Your task to perform on an android device: turn on the 24-hour format for clock Image 0: 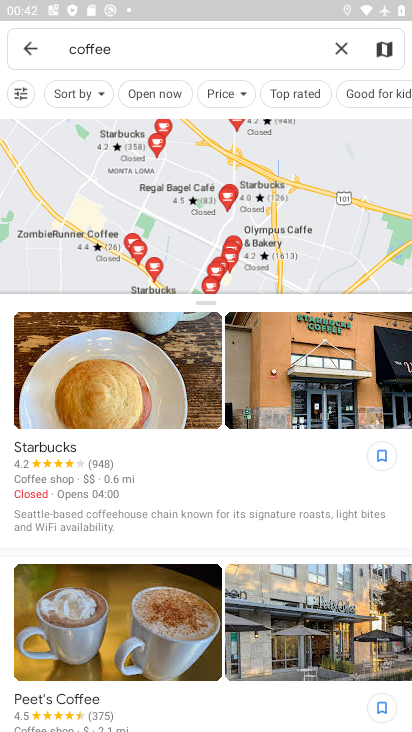
Step 0: press home button
Your task to perform on an android device: turn on the 24-hour format for clock Image 1: 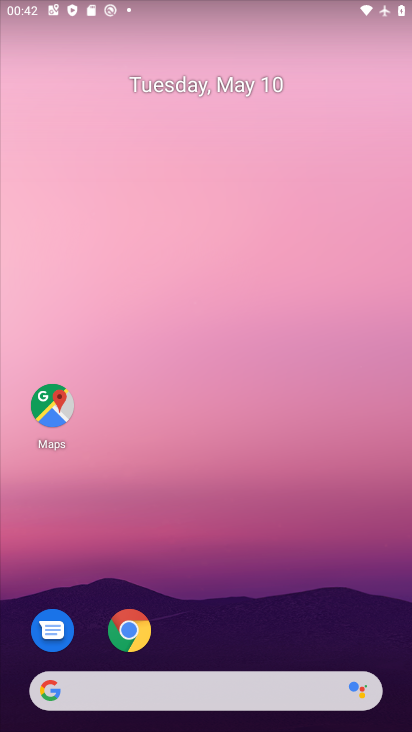
Step 1: drag from (224, 727) to (224, 249)
Your task to perform on an android device: turn on the 24-hour format for clock Image 2: 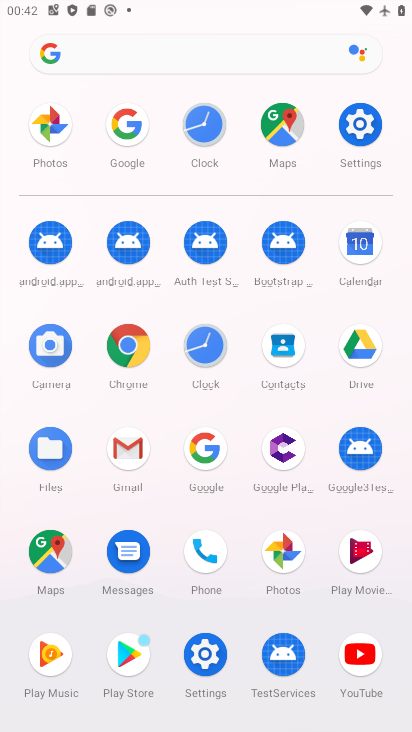
Step 2: click (208, 348)
Your task to perform on an android device: turn on the 24-hour format for clock Image 3: 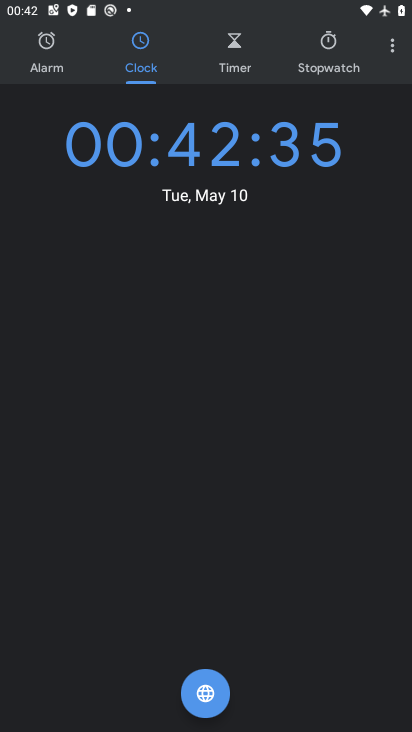
Step 3: click (393, 43)
Your task to perform on an android device: turn on the 24-hour format for clock Image 4: 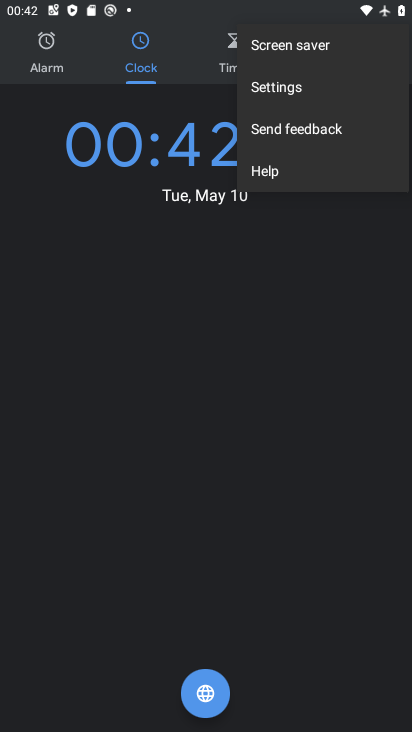
Step 4: click (280, 88)
Your task to perform on an android device: turn on the 24-hour format for clock Image 5: 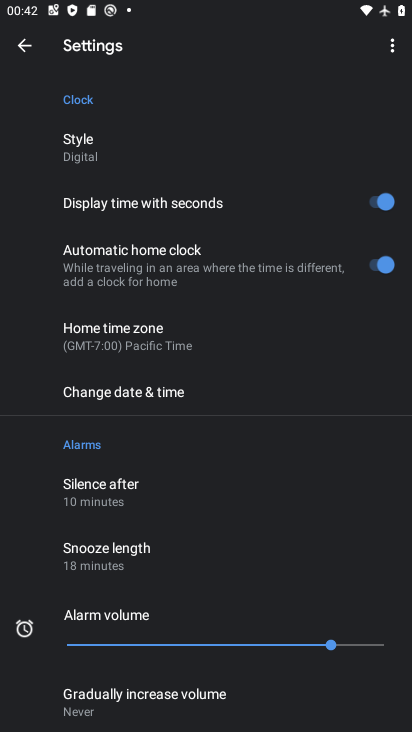
Step 5: drag from (195, 573) to (195, 444)
Your task to perform on an android device: turn on the 24-hour format for clock Image 6: 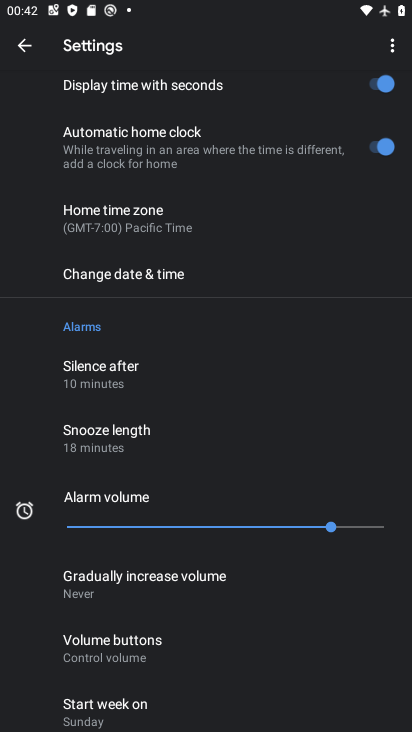
Step 6: click (129, 271)
Your task to perform on an android device: turn on the 24-hour format for clock Image 7: 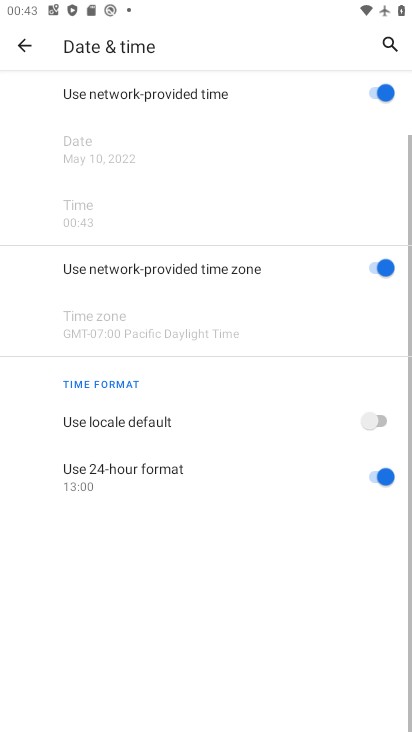
Step 7: task complete